Your task to perform on an android device: Open settings Image 0: 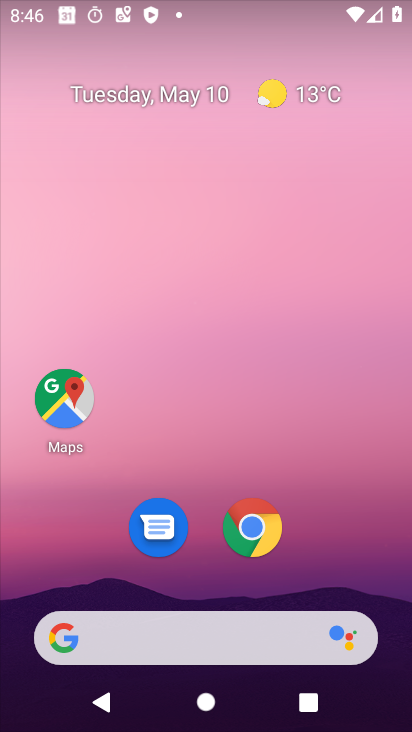
Step 0: drag from (48, 571) to (278, 68)
Your task to perform on an android device: Open settings Image 1: 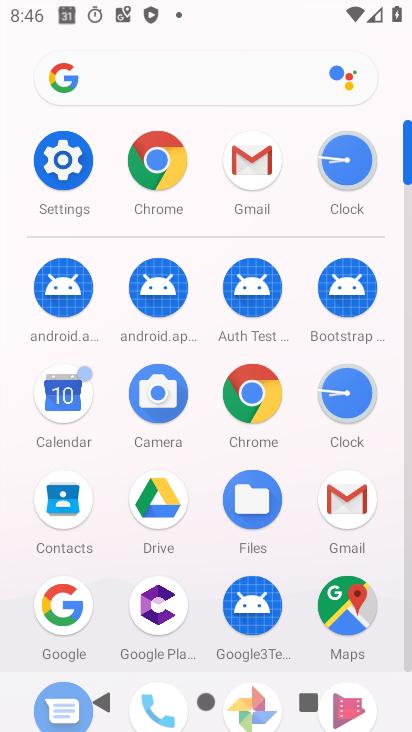
Step 1: click (49, 163)
Your task to perform on an android device: Open settings Image 2: 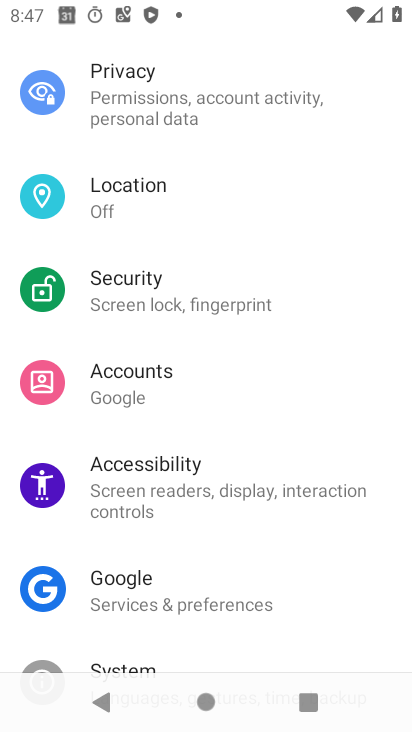
Step 2: task complete